Your task to perform on an android device: Go to Maps Image 0: 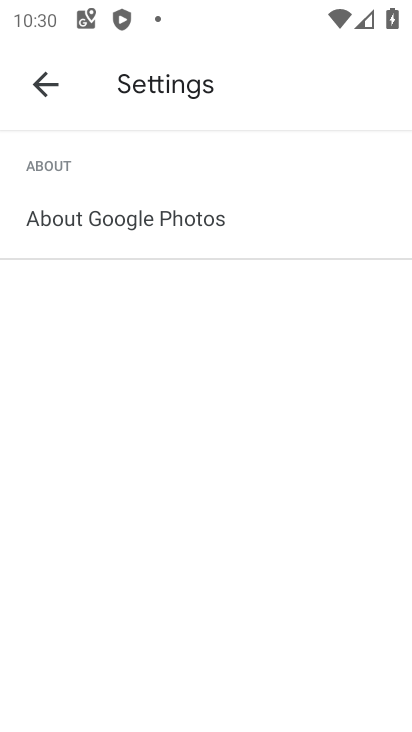
Step 0: press home button
Your task to perform on an android device: Go to Maps Image 1: 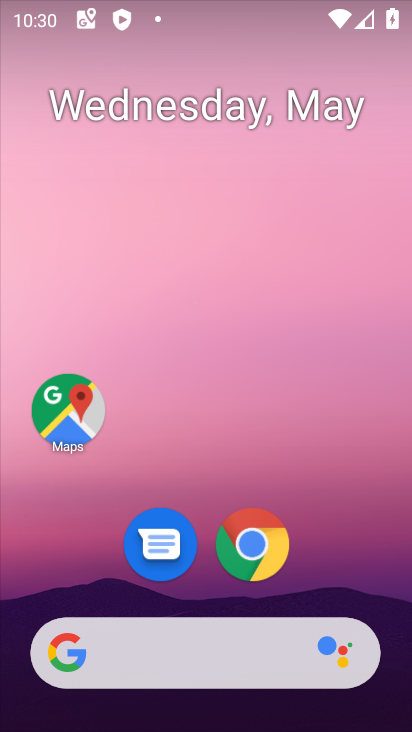
Step 1: drag from (300, 679) to (337, 219)
Your task to perform on an android device: Go to Maps Image 2: 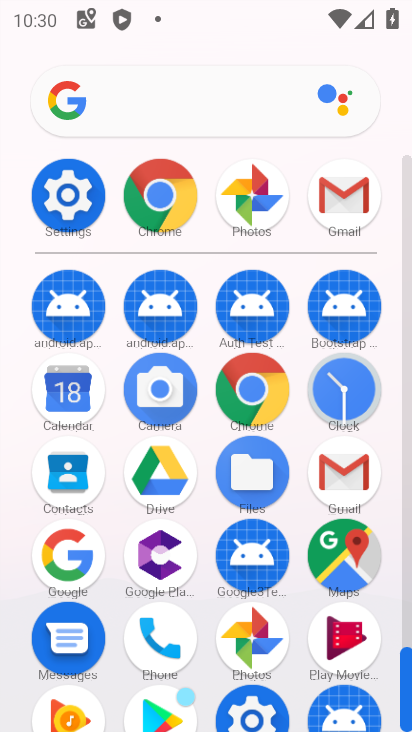
Step 2: click (346, 537)
Your task to perform on an android device: Go to Maps Image 3: 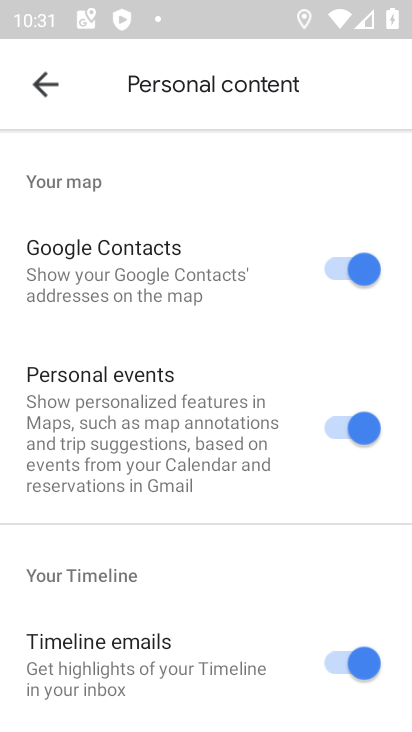
Step 3: press home button
Your task to perform on an android device: Go to Maps Image 4: 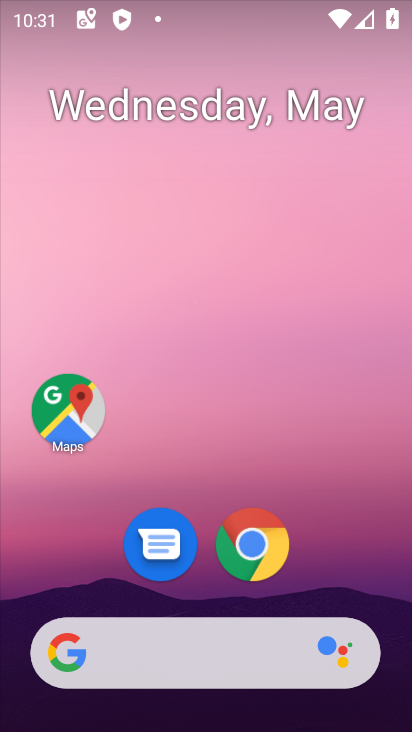
Step 4: drag from (312, 700) to (361, 281)
Your task to perform on an android device: Go to Maps Image 5: 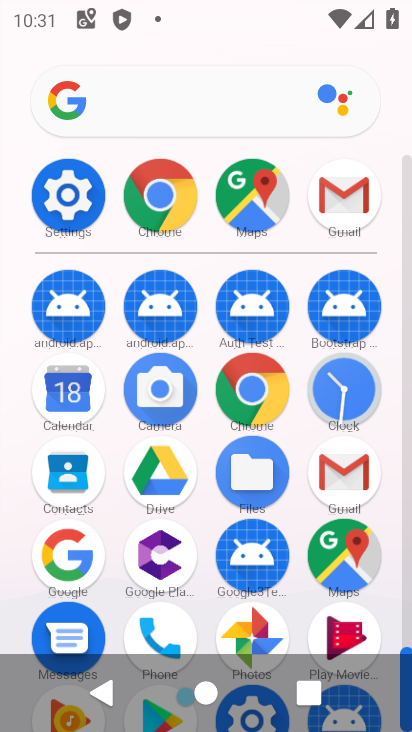
Step 5: click (323, 463)
Your task to perform on an android device: Go to Maps Image 6: 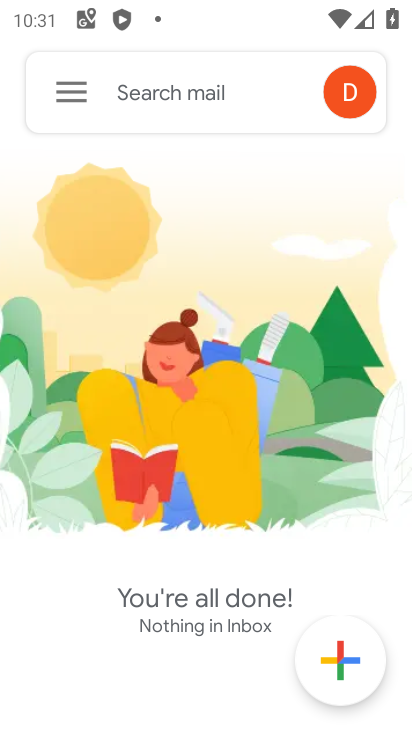
Step 6: drag from (253, 570) to (301, 171)
Your task to perform on an android device: Go to Maps Image 7: 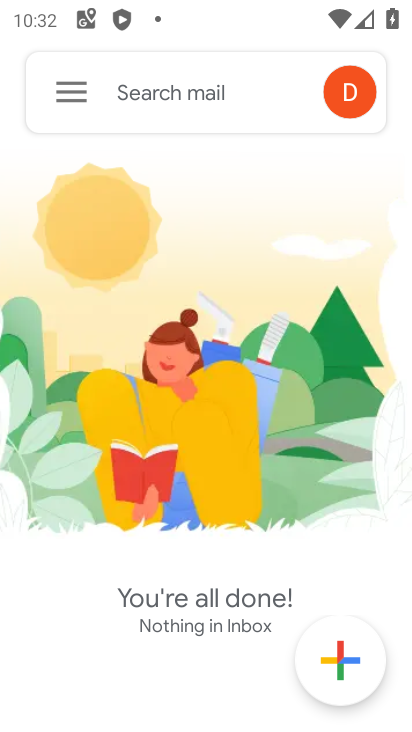
Step 7: press home button
Your task to perform on an android device: Go to Maps Image 8: 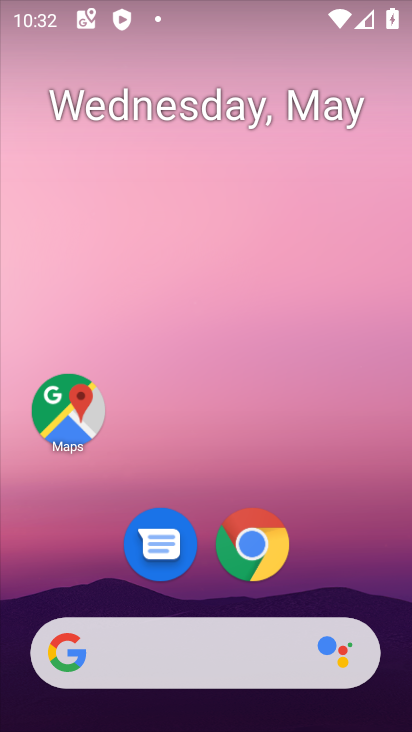
Step 8: drag from (281, 631) to (330, 135)
Your task to perform on an android device: Go to Maps Image 9: 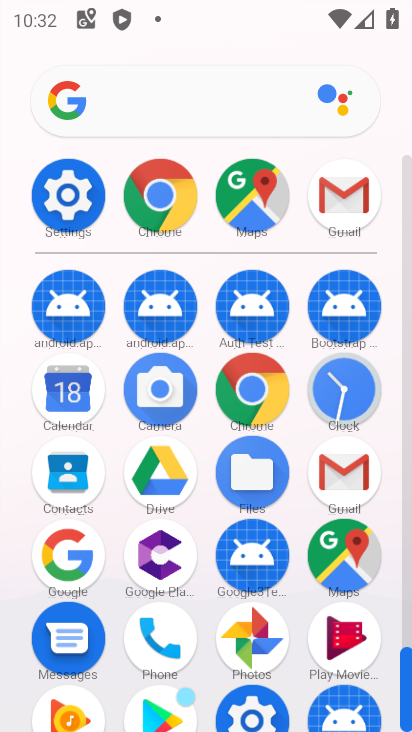
Step 9: click (319, 557)
Your task to perform on an android device: Go to Maps Image 10: 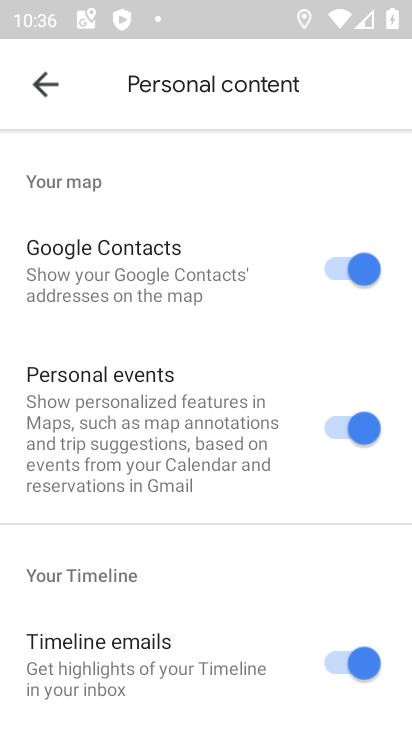
Step 10: press home button
Your task to perform on an android device: Go to Maps Image 11: 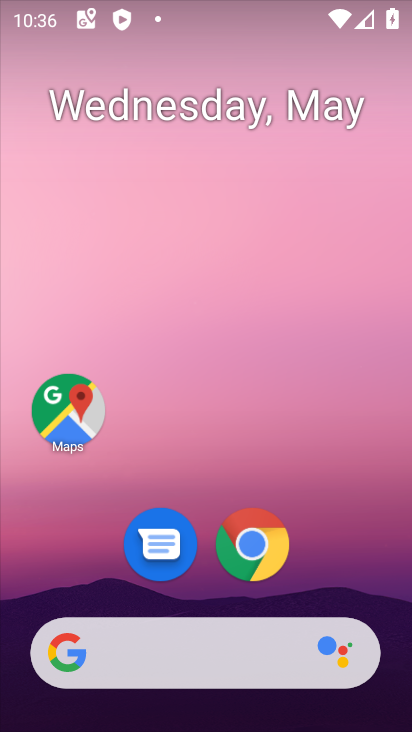
Step 11: drag from (180, 618) to (212, 128)
Your task to perform on an android device: Go to Maps Image 12: 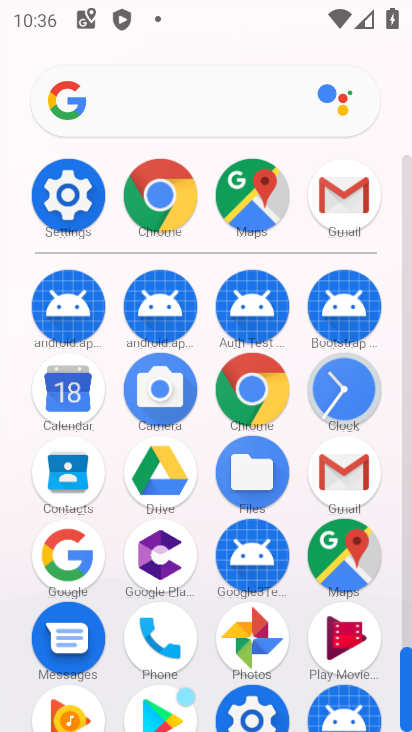
Step 12: click (349, 539)
Your task to perform on an android device: Go to Maps Image 13: 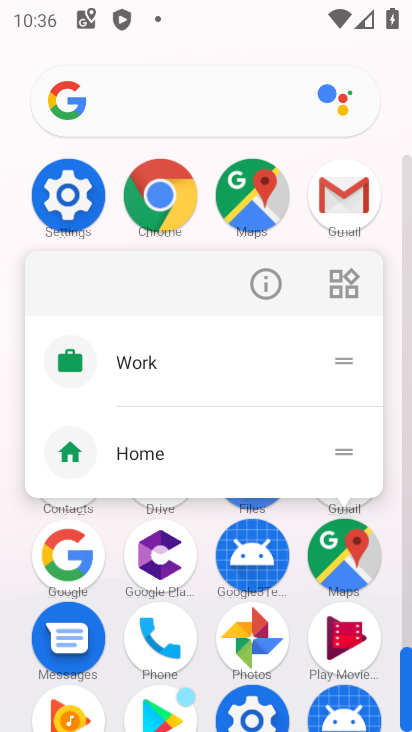
Step 13: click (360, 555)
Your task to perform on an android device: Go to Maps Image 14: 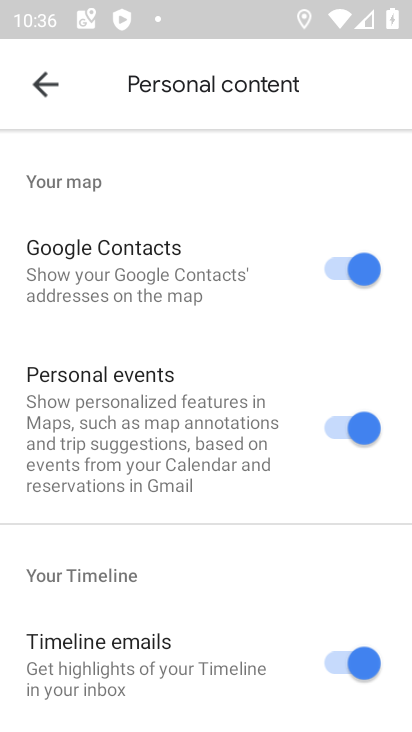
Step 14: task complete